Your task to perform on an android device: Turn on the flashlight Image 0: 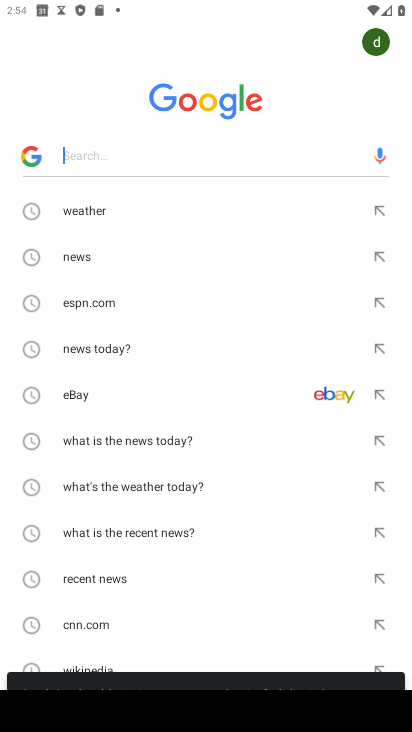
Step 0: press home button
Your task to perform on an android device: Turn on the flashlight Image 1: 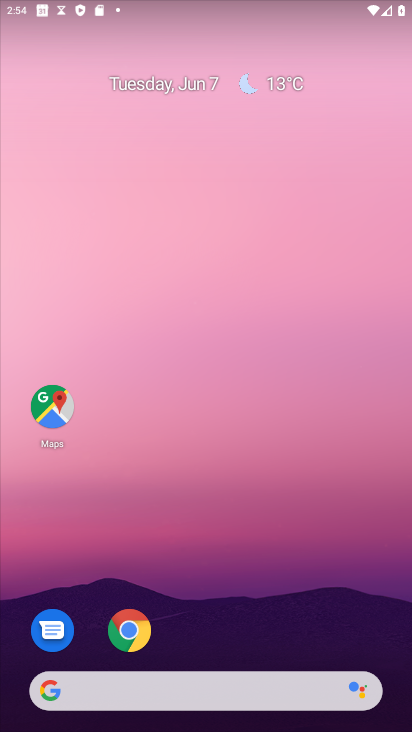
Step 1: task complete